Your task to perform on an android device: read, delete, or share a saved page in the chrome app Image 0: 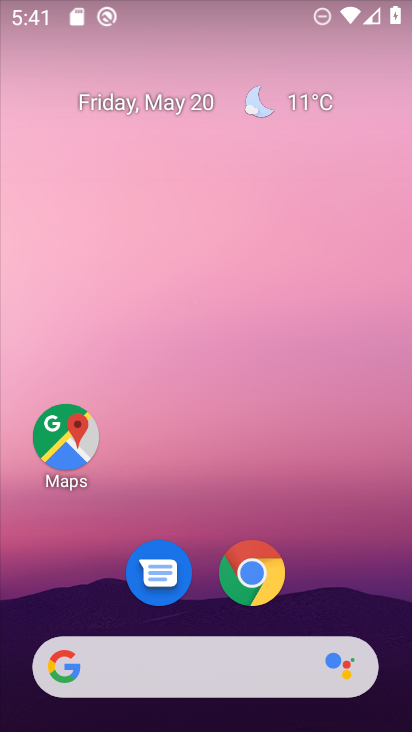
Step 0: click (250, 577)
Your task to perform on an android device: read, delete, or share a saved page in the chrome app Image 1: 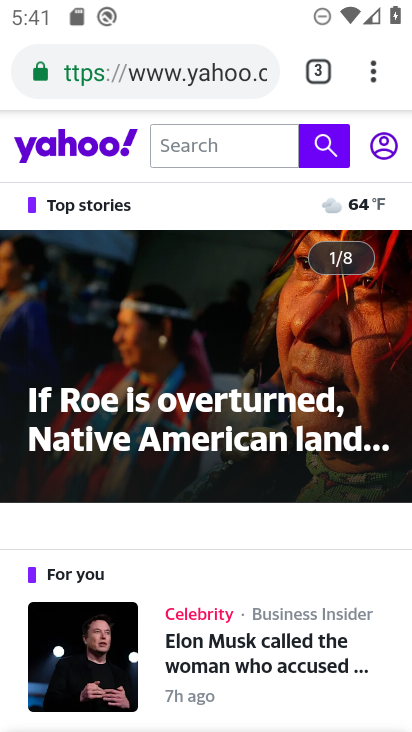
Step 1: click (368, 54)
Your task to perform on an android device: read, delete, or share a saved page in the chrome app Image 2: 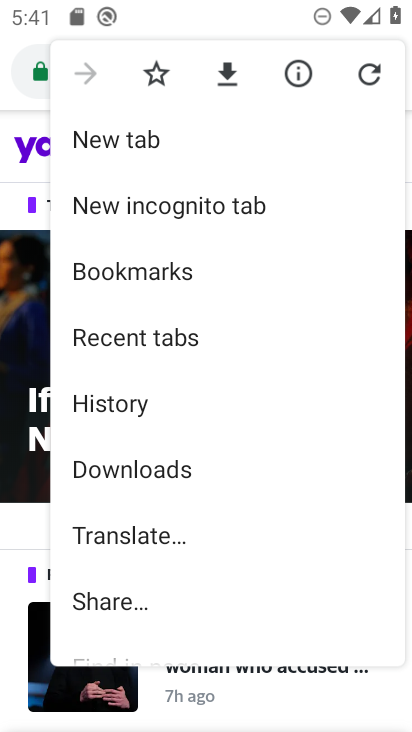
Step 2: click (145, 467)
Your task to perform on an android device: read, delete, or share a saved page in the chrome app Image 3: 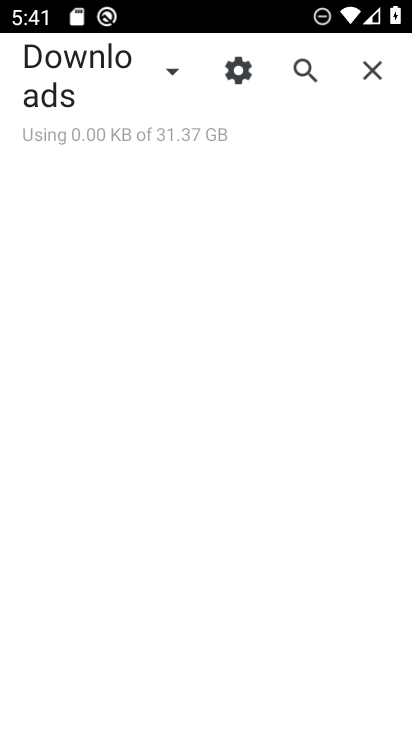
Step 3: click (100, 64)
Your task to perform on an android device: read, delete, or share a saved page in the chrome app Image 4: 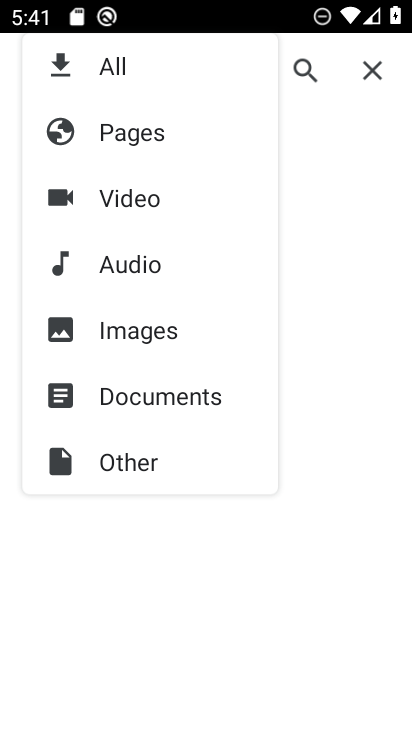
Step 4: click (160, 130)
Your task to perform on an android device: read, delete, or share a saved page in the chrome app Image 5: 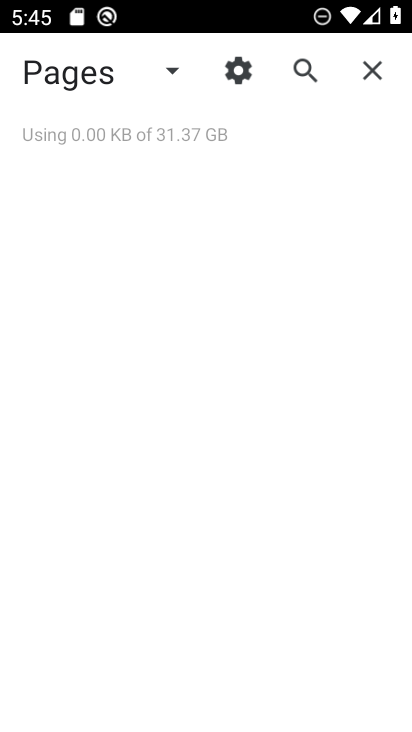
Step 5: task complete